Your task to perform on an android device: change your default location settings in chrome Image 0: 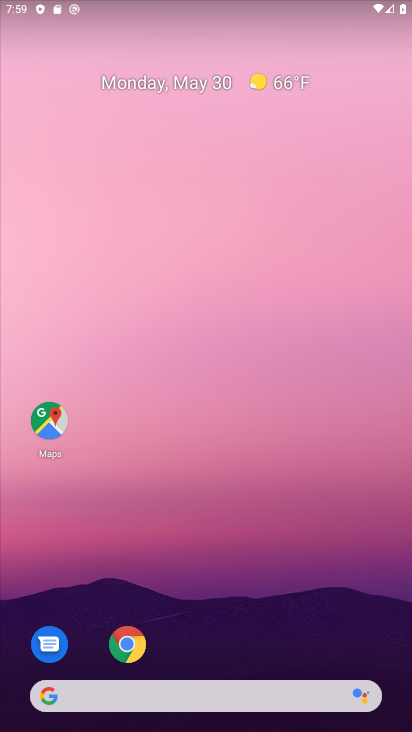
Step 0: drag from (224, 638) to (216, 131)
Your task to perform on an android device: change your default location settings in chrome Image 1: 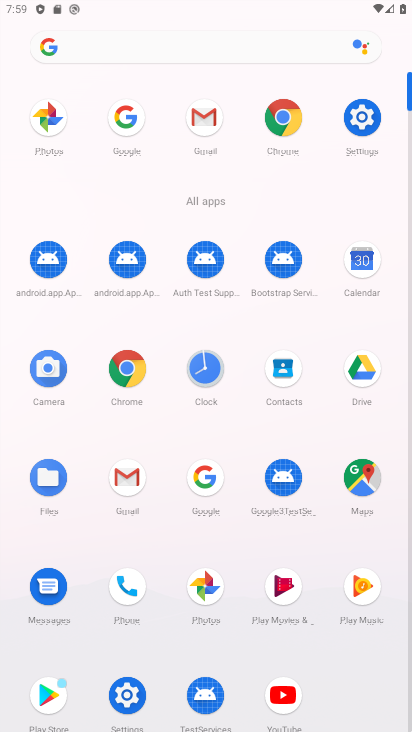
Step 1: click (284, 116)
Your task to perform on an android device: change your default location settings in chrome Image 2: 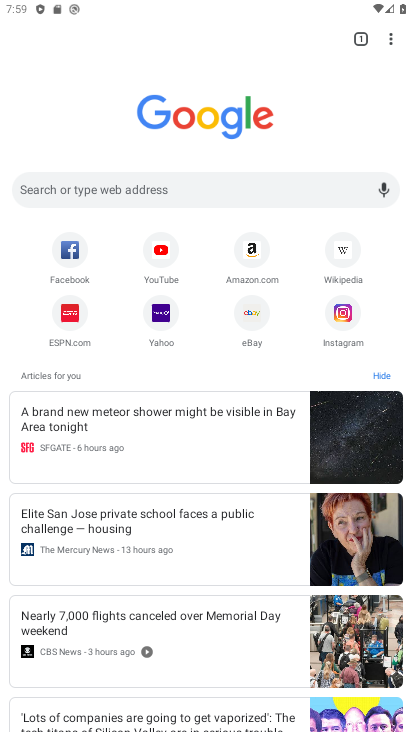
Step 2: click (387, 34)
Your task to perform on an android device: change your default location settings in chrome Image 3: 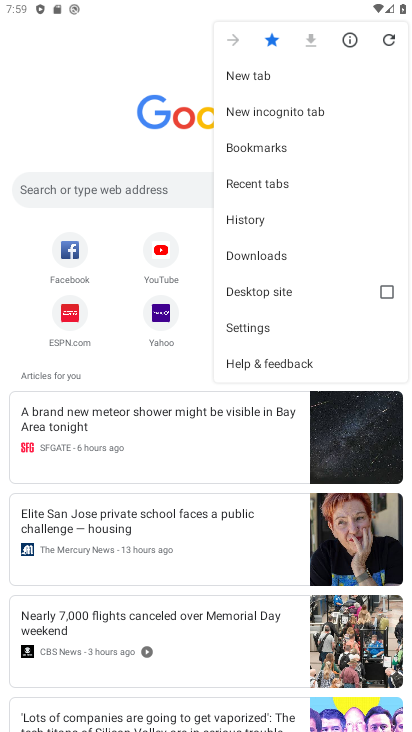
Step 3: click (284, 321)
Your task to perform on an android device: change your default location settings in chrome Image 4: 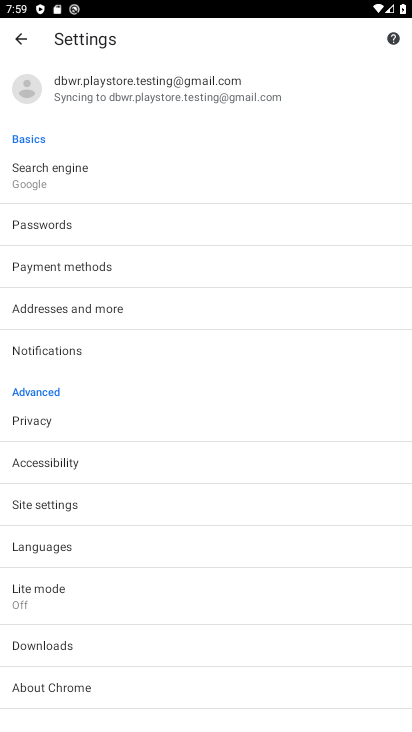
Step 4: click (46, 506)
Your task to perform on an android device: change your default location settings in chrome Image 5: 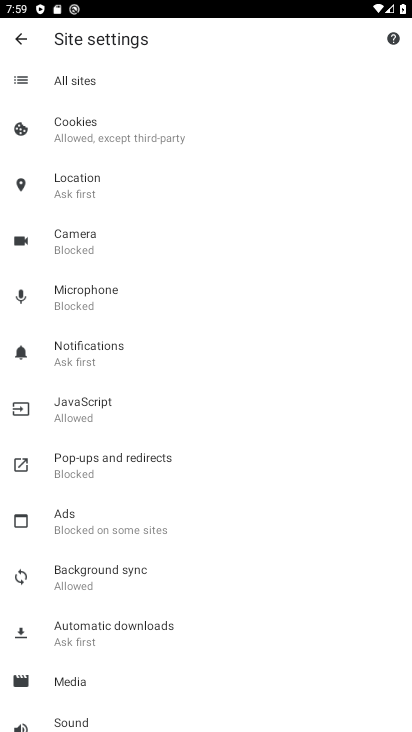
Step 5: click (110, 188)
Your task to perform on an android device: change your default location settings in chrome Image 6: 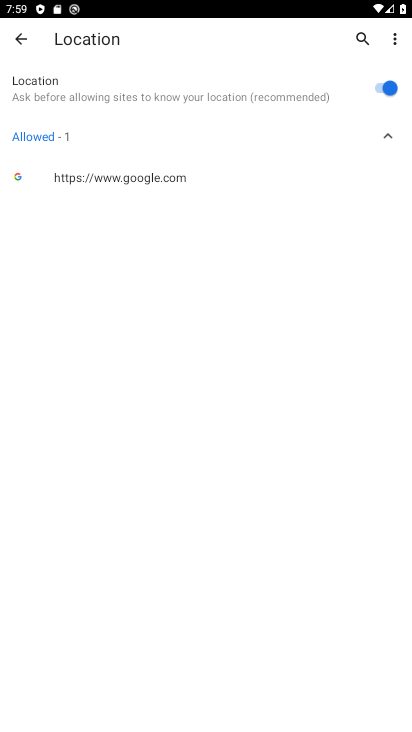
Step 6: click (381, 87)
Your task to perform on an android device: change your default location settings in chrome Image 7: 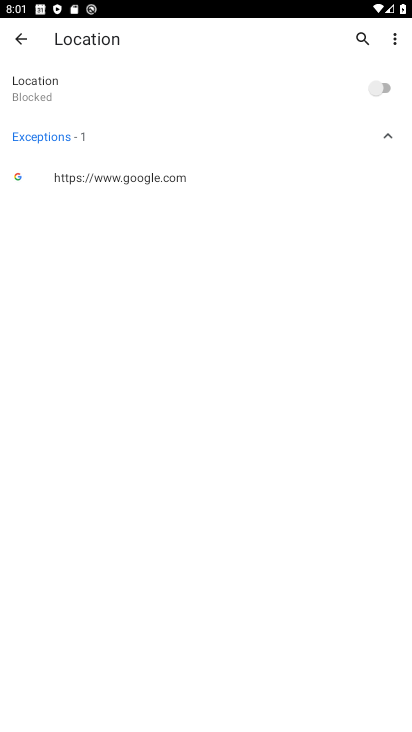
Step 7: task complete